Your task to perform on an android device: toggle wifi Image 0: 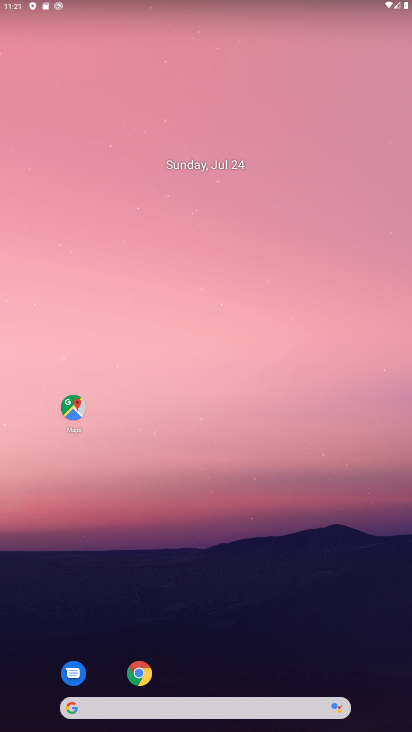
Step 0: drag from (174, 708) to (247, 60)
Your task to perform on an android device: toggle wifi Image 1: 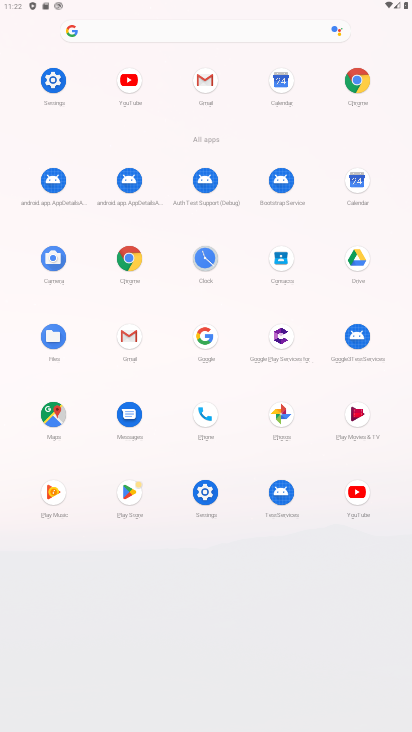
Step 1: click (53, 79)
Your task to perform on an android device: toggle wifi Image 2: 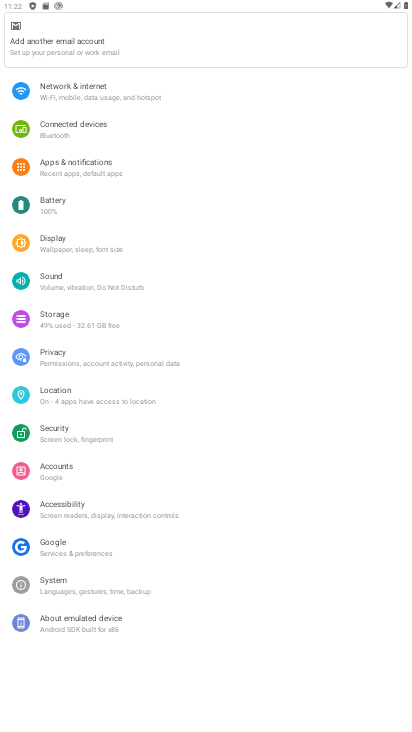
Step 2: click (93, 102)
Your task to perform on an android device: toggle wifi Image 3: 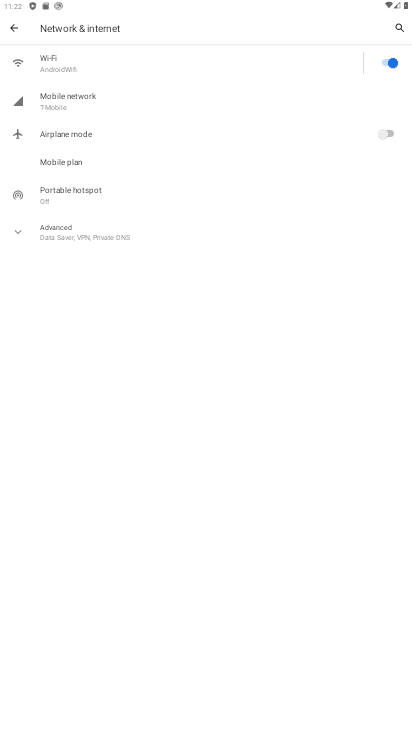
Step 3: click (387, 61)
Your task to perform on an android device: toggle wifi Image 4: 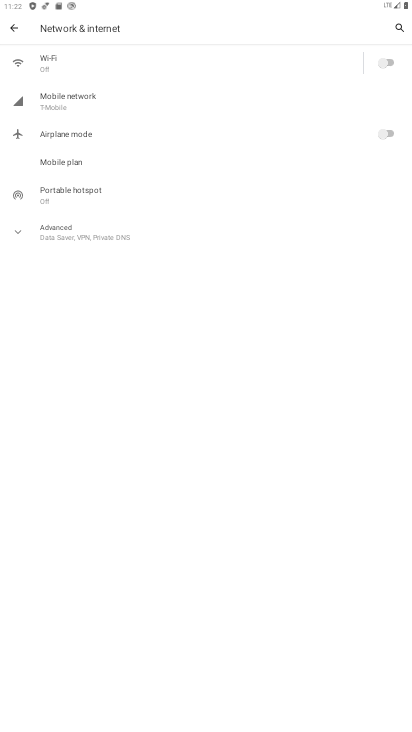
Step 4: task complete